Your task to perform on an android device: Open the calendar app, open the side menu, and click the "Day" option Image 0: 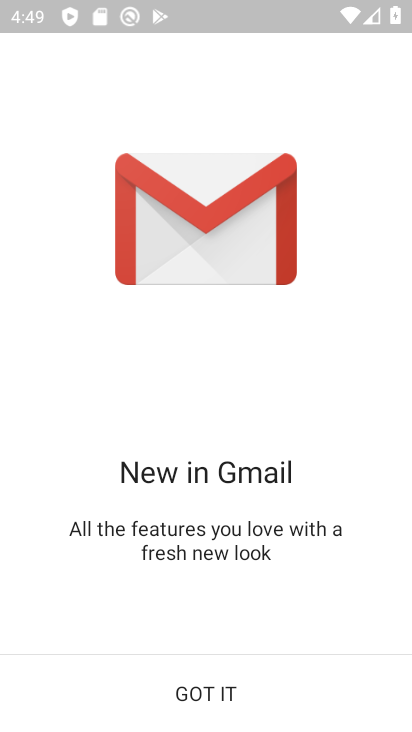
Step 0: press home button
Your task to perform on an android device: Open the calendar app, open the side menu, and click the "Day" option Image 1: 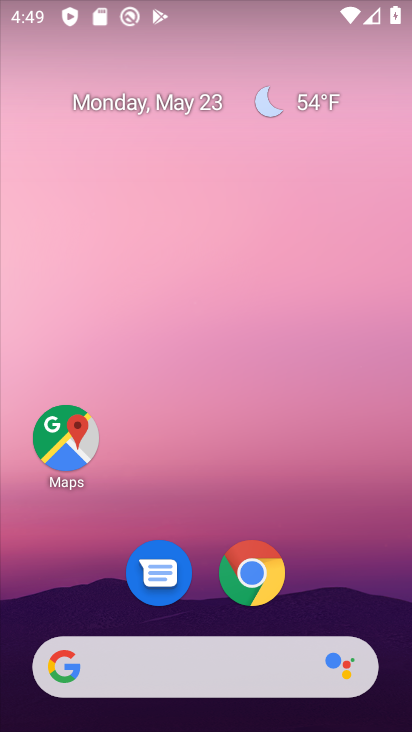
Step 1: drag from (222, 724) to (214, 157)
Your task to perform on an android device: Open the calendar app, open the side menu, and click the "Day" option Image 2: 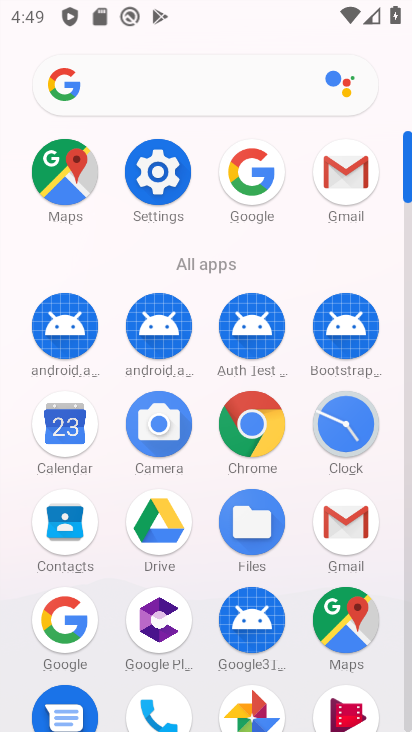
Step 2: click (67, 429)
Your task to perform on an android device: Open the calendar app, open the side menu, and click the "Day" option Image 3: 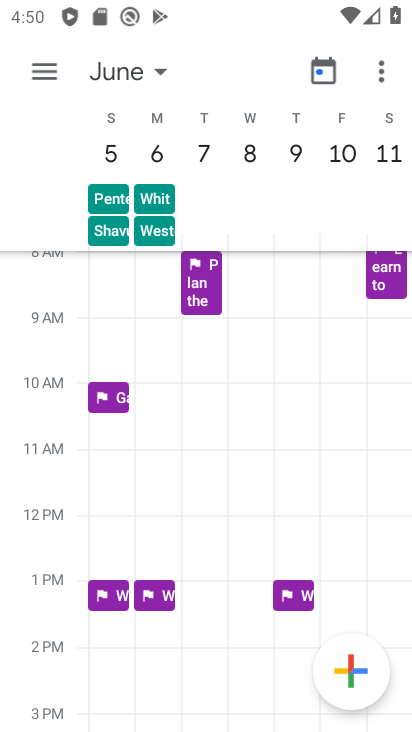
Step 3: click (42, 71)
Your task to perform on an android device: Open the calendar app, open the side menu, and click the "Day" option Image 4: 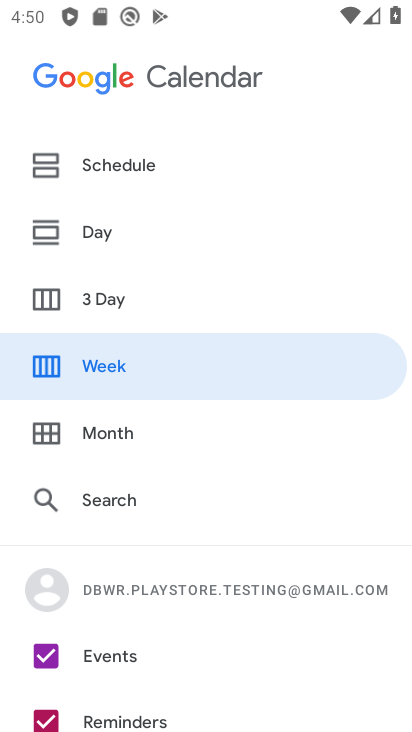
Step 4: click (115, 229)
Your task to perform on an android device: Open the calendar app, open the side menu, and click the "Day" option Image 5: 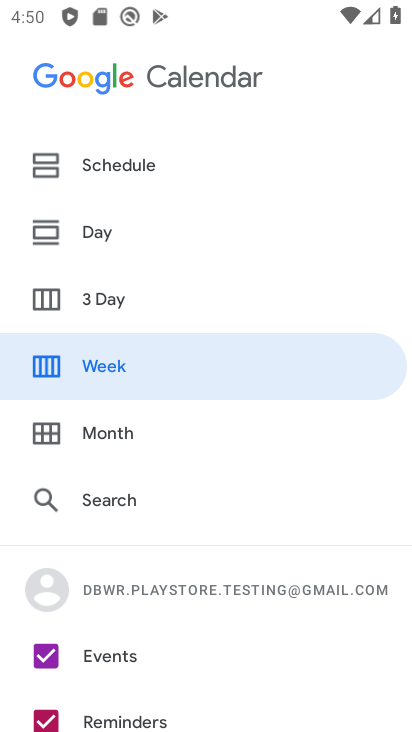
Step 5: click (93, 238)
Your task to perform on an android device: Open the calendar app, open the side menu, and click the "Day" option Image 6: 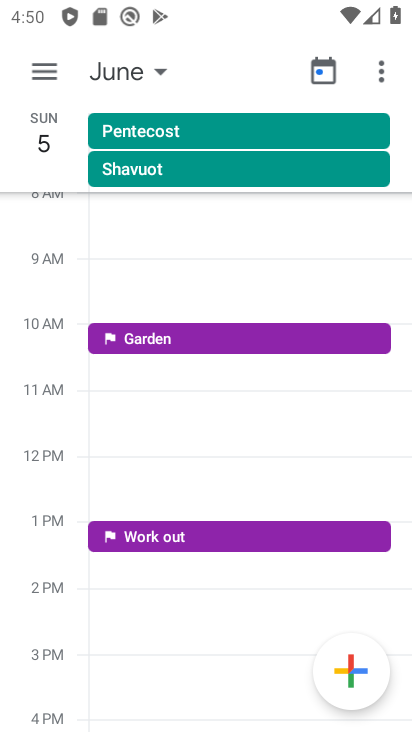
Step 6: task complete